Your task to perform on an android device: star an email in the gmail app Image 0: 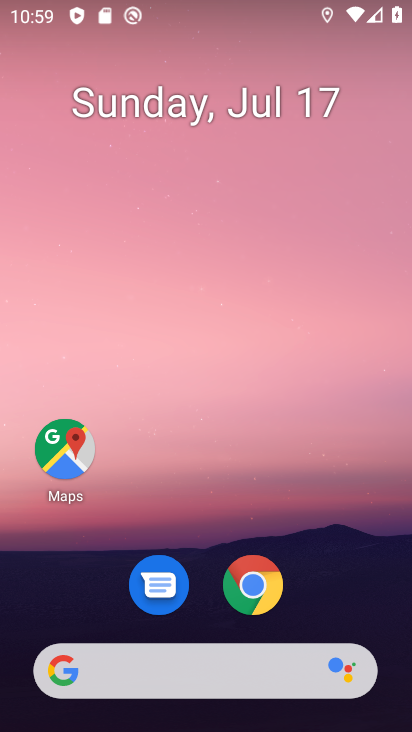
Step 0: drag from (348, 560) to (366, 52)
Your task to perform on an android device: star an email in the gmail app Image 1: 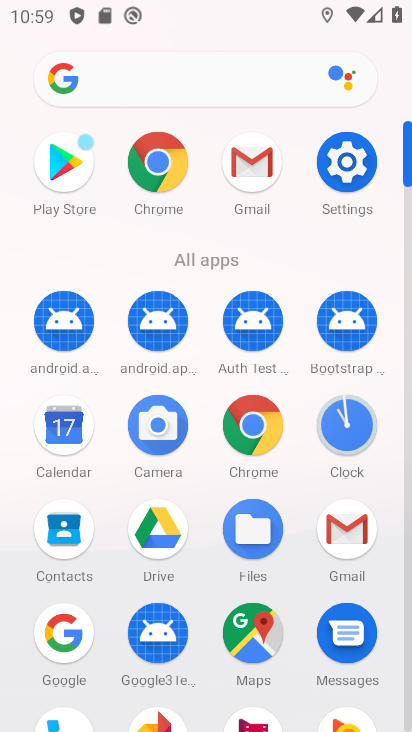
Step 1: click (252, 170)
Your task to perform on an android device: star an email in the gmail app Image 2: 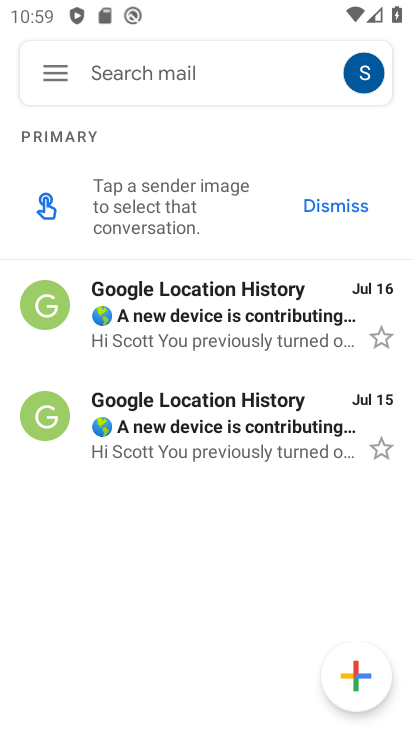
Step 2: click (380, 343)
Your task to perform on an android device: star an email in the gmail app Image 3: 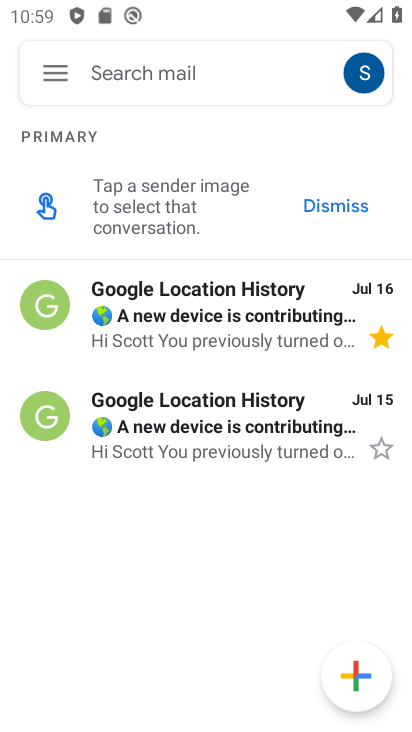
Step 3: task complete